Your task to perform on an android device: Open accessibility settings Image 0: 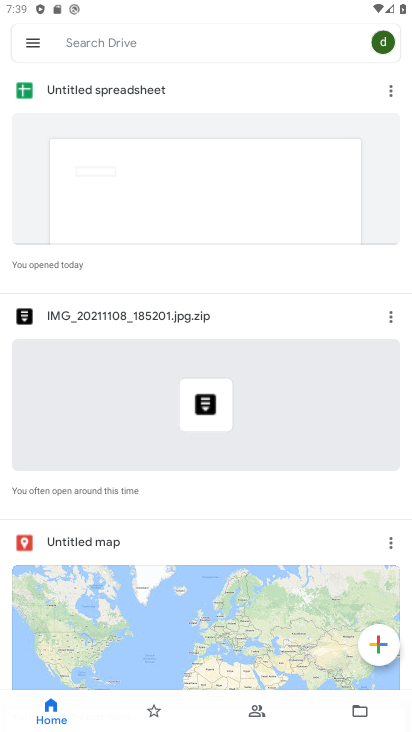
Step 0: press home button
Your task to perform on an android device: Open accessibility settings Image 1: 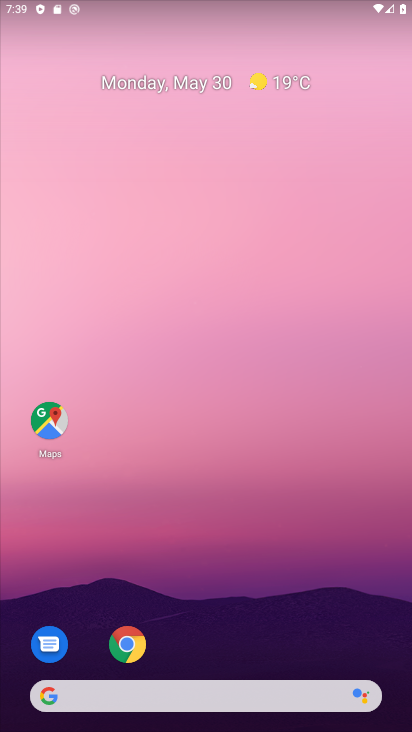
Step 1: drag from (232, 563) to (327, 62)
Your task to perform on an android device: Open accessibility settings Image 2: 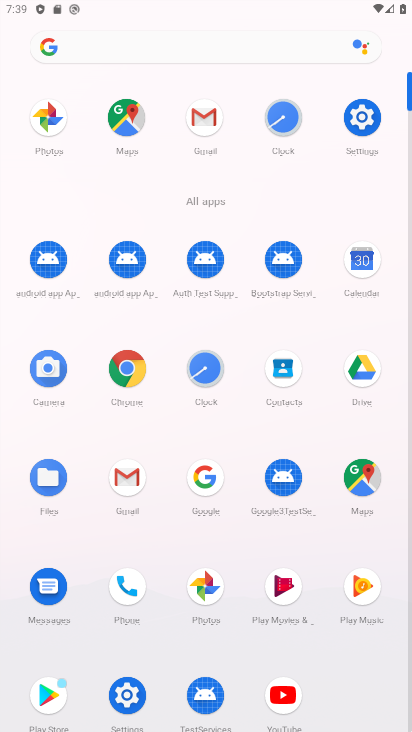
Step 2: click (360, 110)
Your task to perform on an android device: Open accessibility settings Image 3: 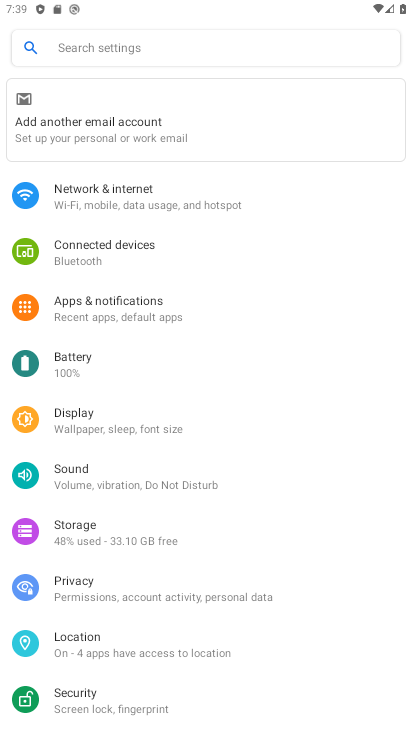
Step 3: drag from (231, 577) to (275, 320)
Your task to perform on an android device: Open accessibility settings Image 4: 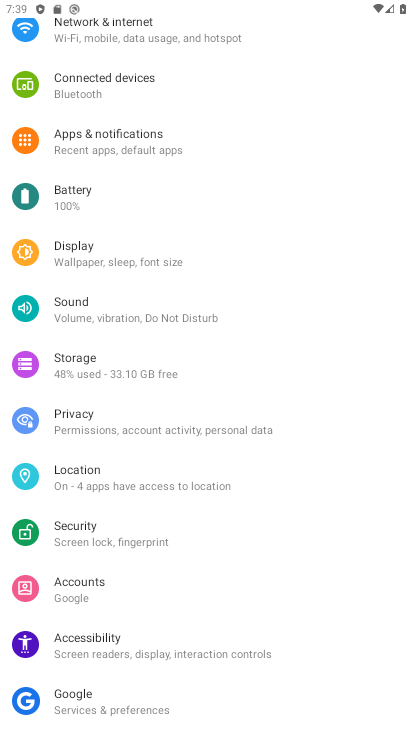
Step 4: click (99, 649)
Your task to perform on an android device: Open accessibility settings Image 5: 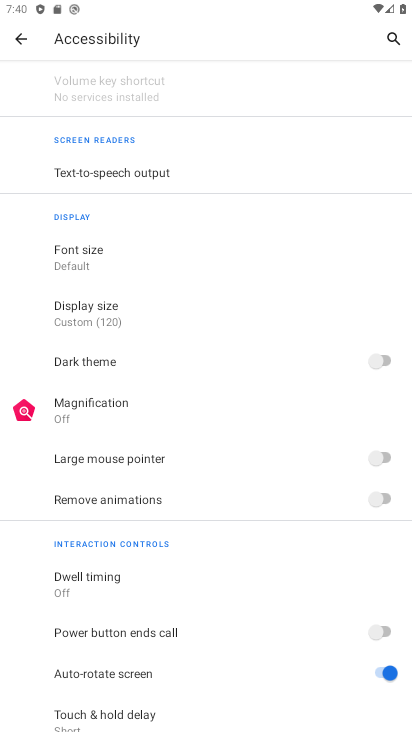
Step 5: task complete